Your task to perform on an android device: move an email to a new category in the gmail app Image 0: 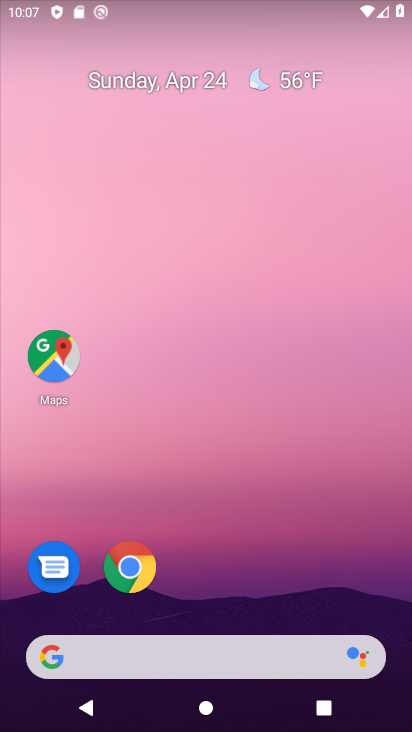
Step 0: drag from (223, 617) to (264, 121)
Your task to perform on an android device: move an email to a new category in the gmail app Image 1: 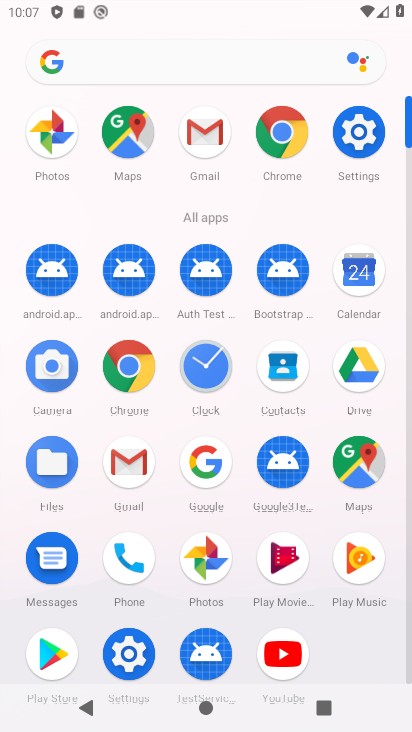
Step 1: click (204, 142)
Your task to perform on an android device: move an email to a new category in the gmail app Image 2: 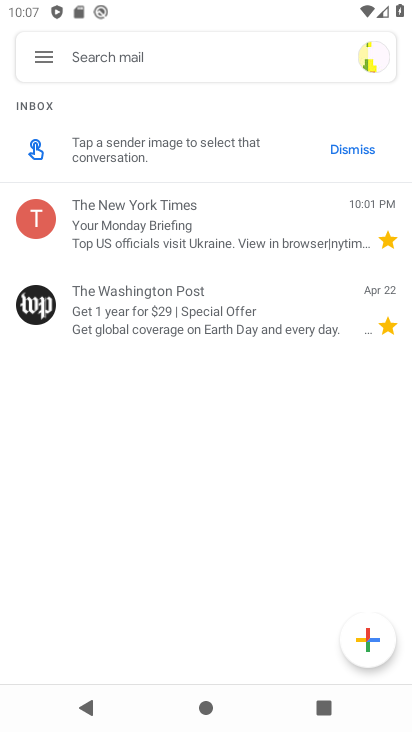
Step 2: click (39, 221)
Your task to perform on an android device: move an email to a new category in the gmail app Image 3: 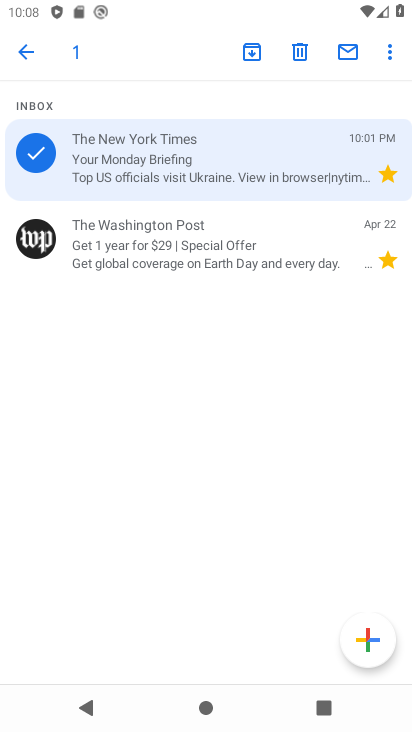
Step 3: click (393, 54)
Your task to perform on an android device: move an email to a new category in the gmail app Image 4: 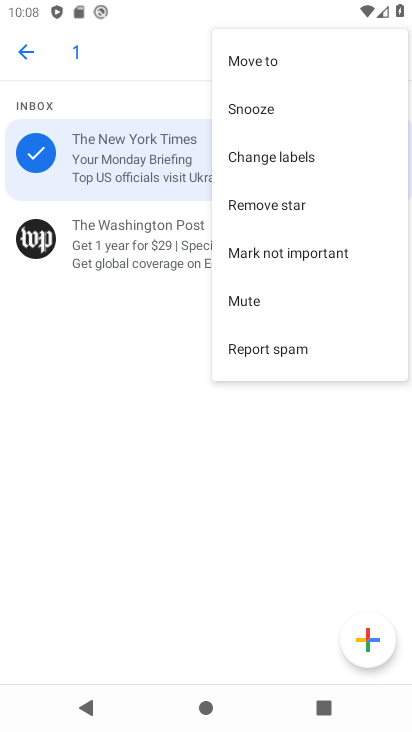
Step 4: click (277, 251)
Your task to perform on an android device: move an email to a new category in the gmail app Image 5: 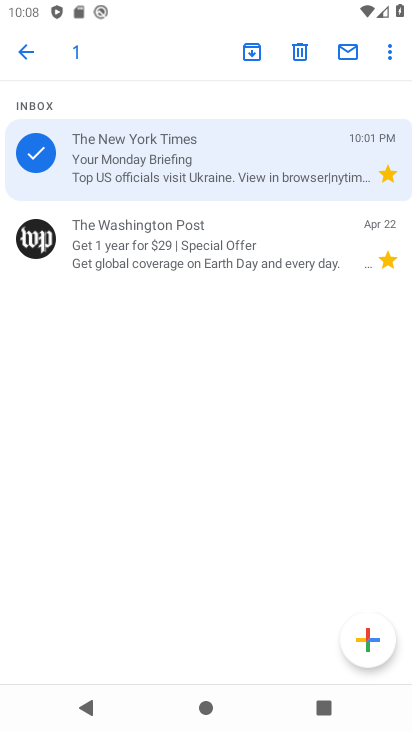
Step 5: click (389, 49)
Your task to perform on an android device: move an email to a new category in the gmail app Image 6: 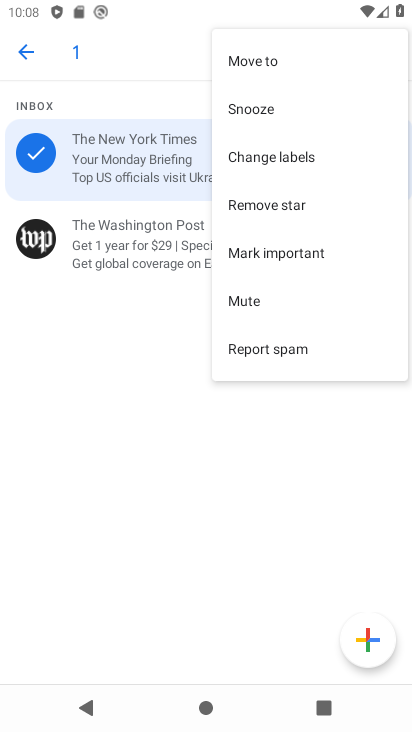
Step 6: click (270, 255)
Your task to perform on an android device: move an email to a new category in the gmail app Image 7: 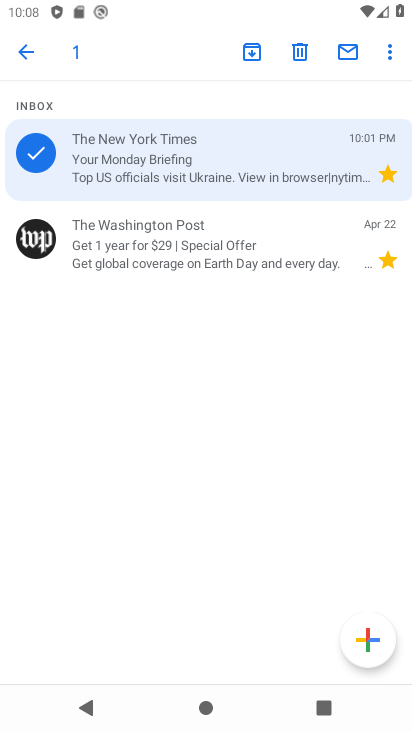
Step 7: click (384, 49)
Your task to perform on an android device: move an email to a new category in the gmail app Image 8: 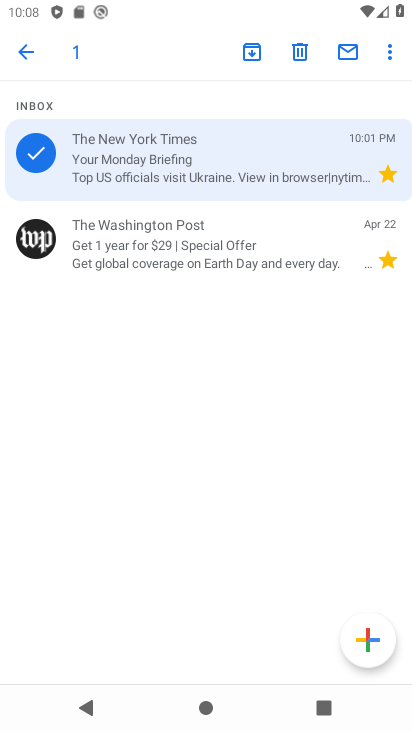
Step 8: click (389, 54)
Your task to perform on an android device: move an email to a new category in the gmail app Image 9: 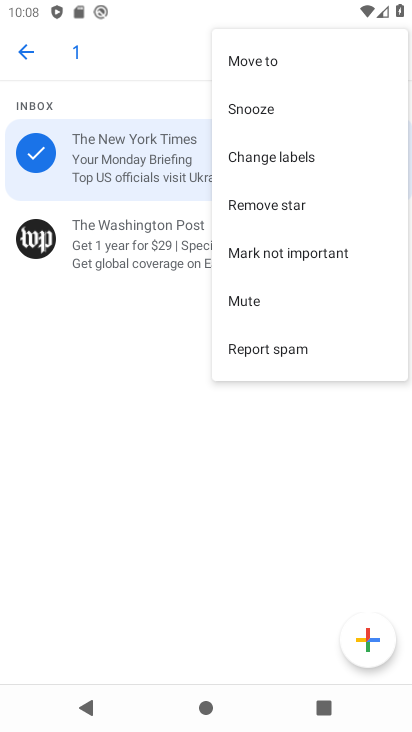
Step 9: click (267, 250)
Your task to perform on an android device: move an email to a new category in the gmail app Image 10: 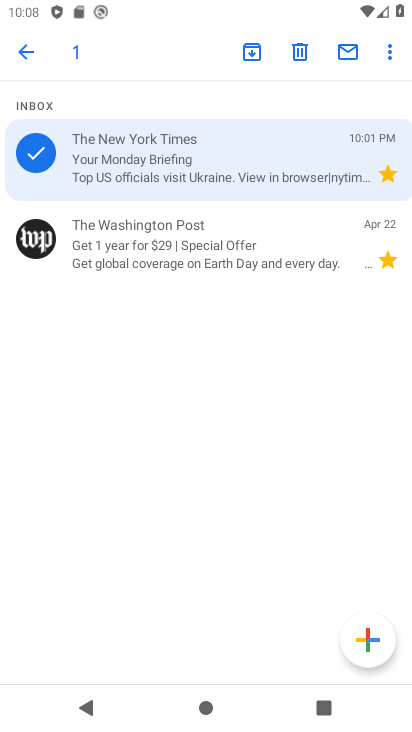
Step 10: task complete